Your task to perform on an android device: Go to Google Image 0: 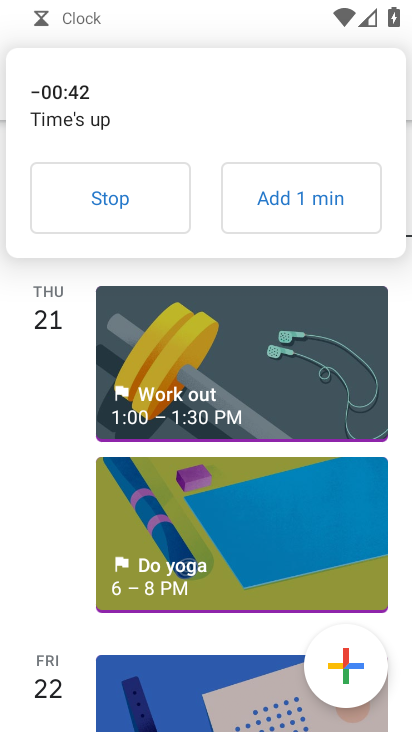
Step 0: press home button
Your task to perform on an android device: Go to Google Image 1: 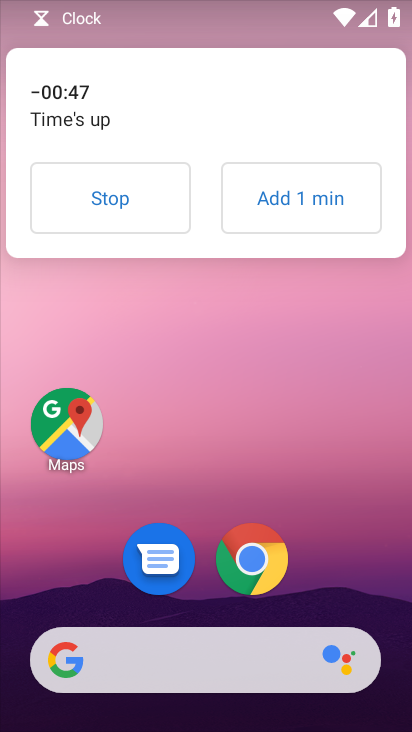
Step 1: drag from (197, 723) to (173, 89)
Your task to perform on an android device: Go to Google Image 2: 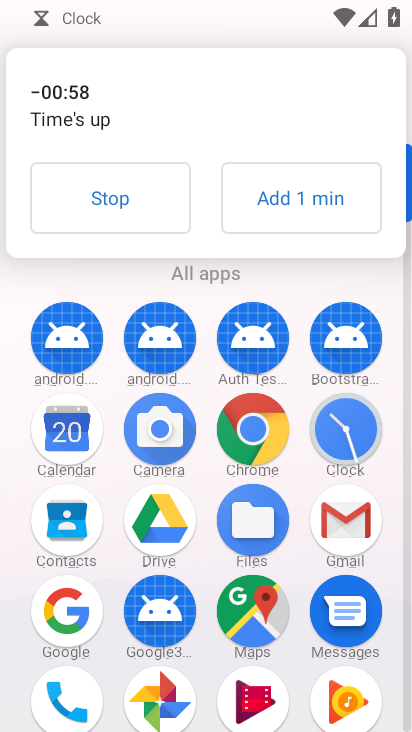
Step 2: click (67, 606)
Your task to perform on an android device: Go to Google Image 3: 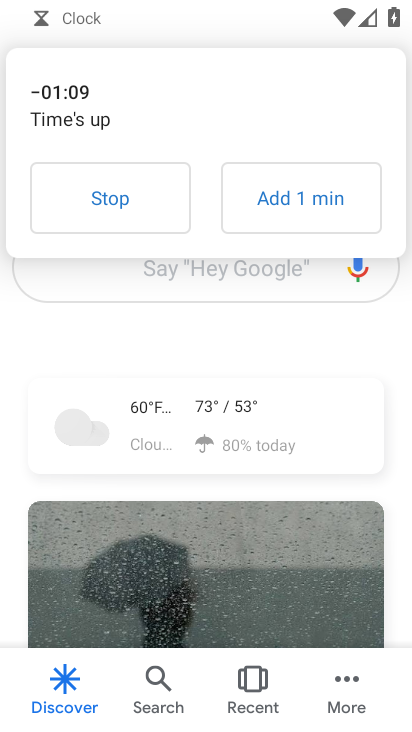
Step 3: task complete